Your task to perform on an android device: Open Youtube and go to "Your channel" Image 0: 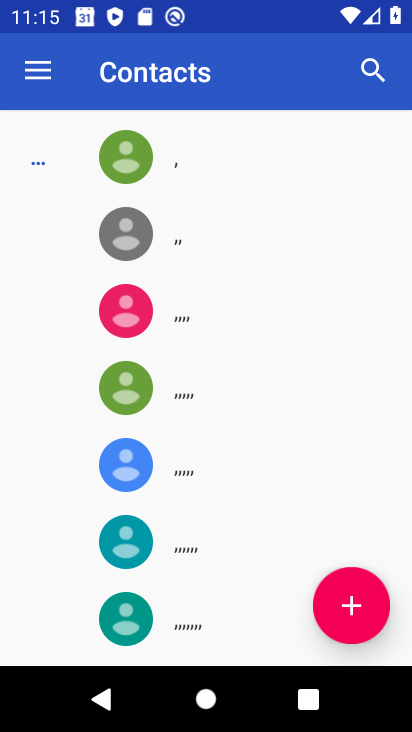
Step 0: press home button
Your task to perform on an android device: Open Youtube and go to "Your channel" Image 1: 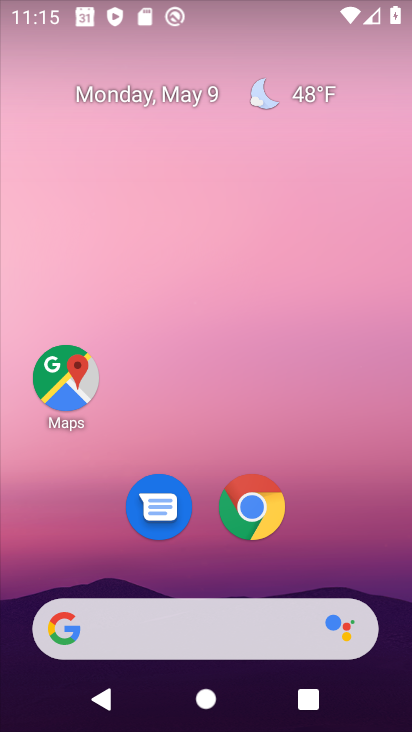
Step 1: drag from (319, 529) to (253, 138)
Your task to perform on an android device: Open Youtube and go to "Your channel" Image 2: 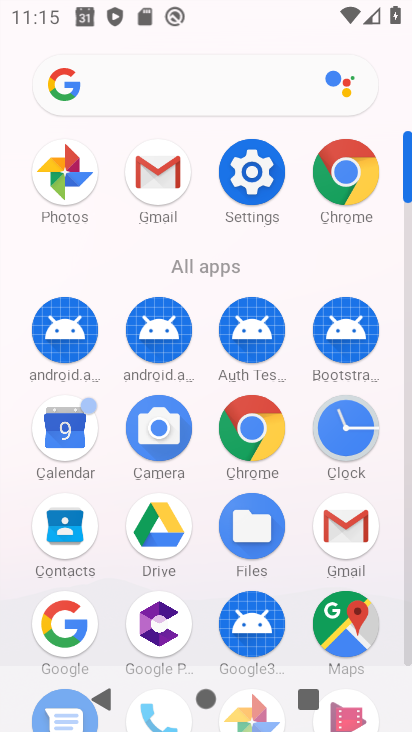
Step 2: drag from (298, 583) to (282, 303)
Your task to perform on an android device: Open Youtube and go to "Your channel" Image 3: 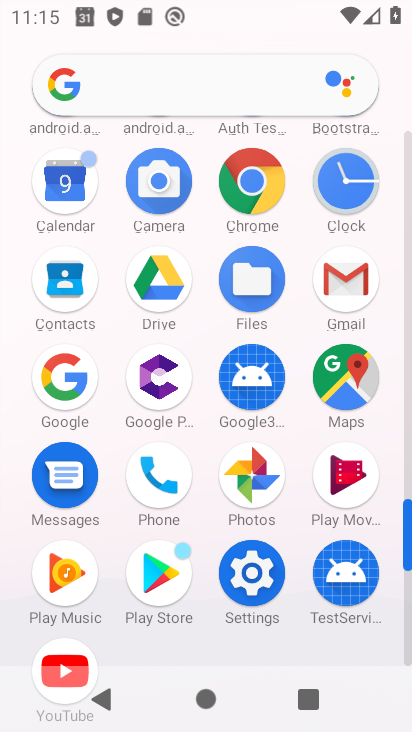
Step 3: click (67, 650)
Your task to perform on an android device: Open Youtube and go to "Your channel" Image 4: 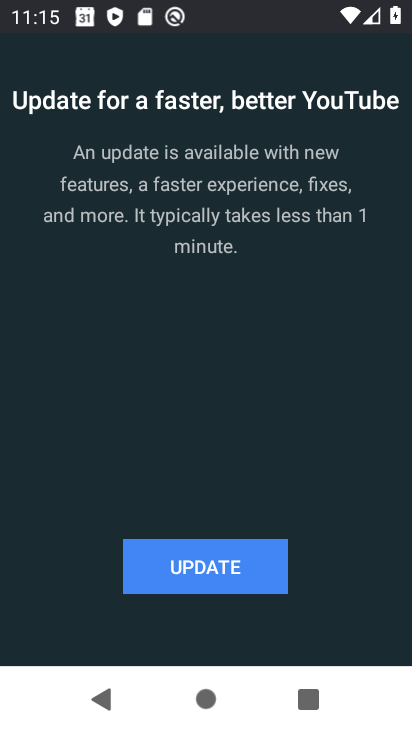
Step 4: click (215, 567)
Your task to perform on an android device: Open Youtube and go to "Your channel" Image 5: 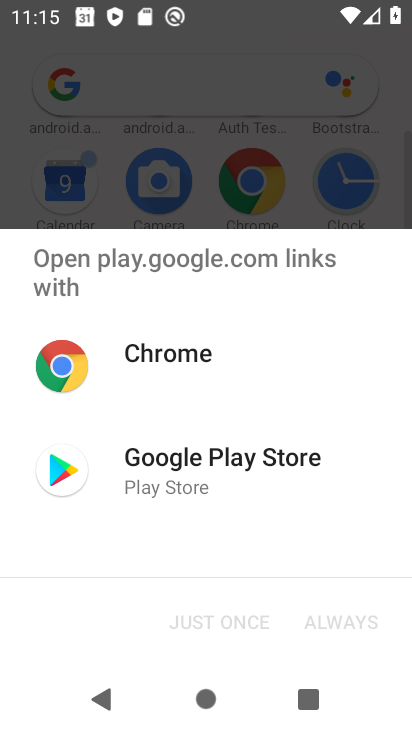
Step 5: click (172, 494)
Your task to perform on an android device: Open Youtube and go to "Your channel" Image 6: 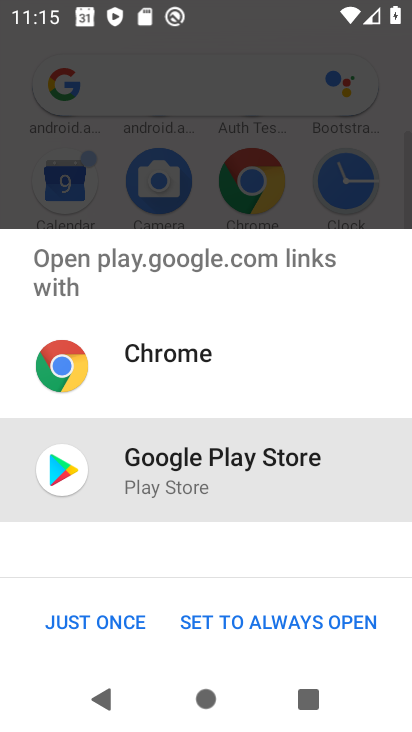
Step 6: click (111, 617)
Your task to perform on an android device: Open Youtube and go to "Your channel" Image 7: 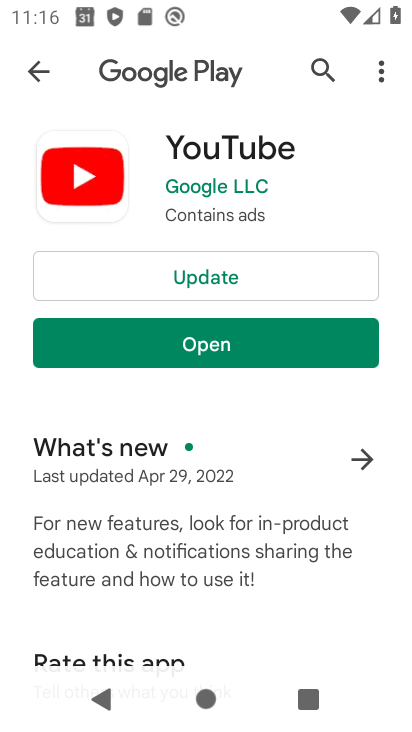
Step 7: click (239, 350)
Your task to perform on an android device: Open Youtube and go to "Your channel" Image 8: 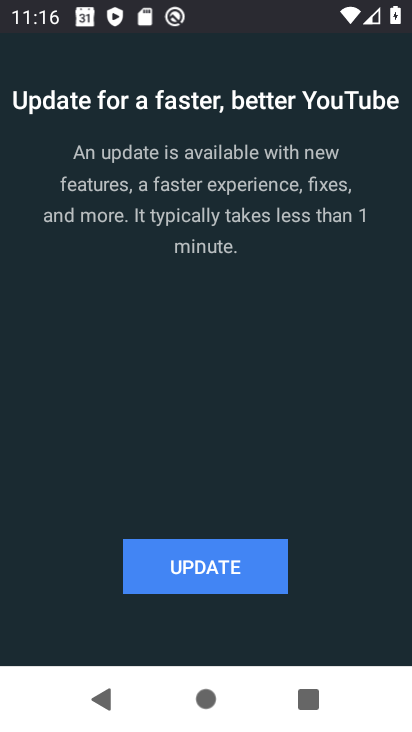
Step 8: click (206, 555)
Your task to perform on an android device: Open Youtube and go to "Your channel" Image 9: 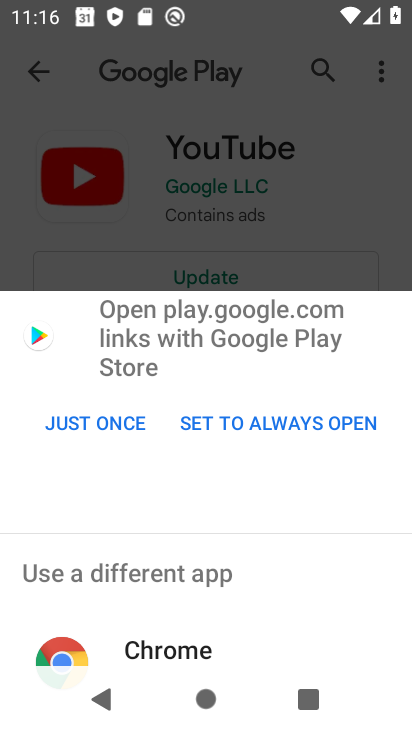
Step 9: click (108, 414)
Your task to perform on an android device: Open Youtube and go to "Your channel" Image 10: 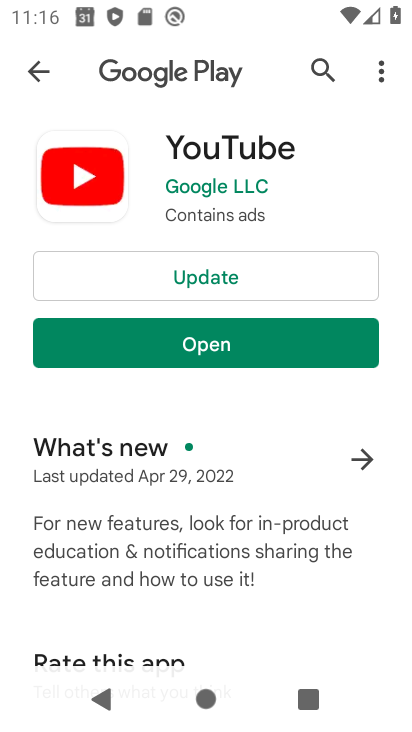
Step 10: click (229, 275)
Your task to perform on an android device: Open Youtube and go to "Your channel" Image 11: 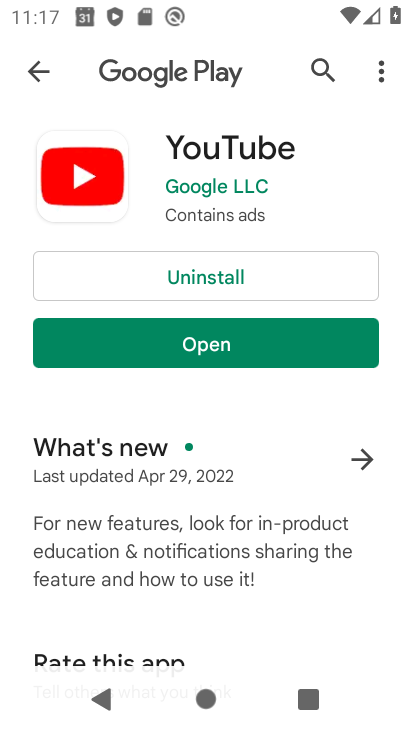
Step 11: click (154, 352)
Your task to perform on an android device: Open Youtube and go to "Your channel" Image 12: 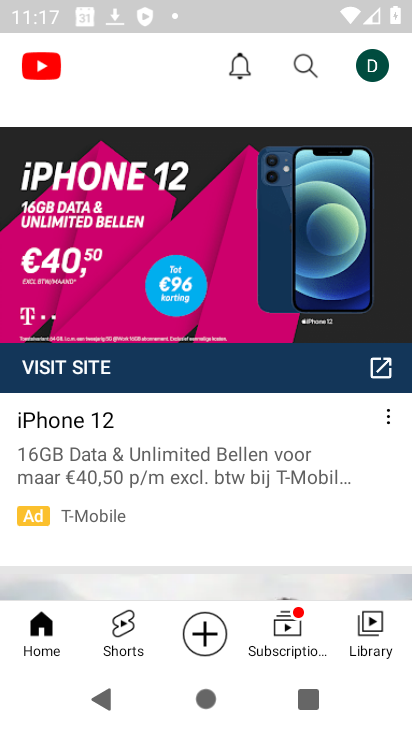
Step 12: click (371, 66)
Your task to perform on an android device: Open Youtube and go to "Your channel" Image 13: 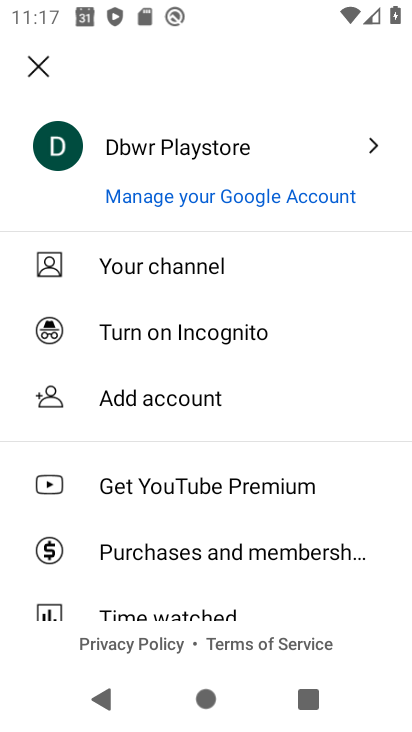
Step 13: click (181, 273)
Your task to perform on an android device: Open Youtube and go to "Your channel" Image 14: 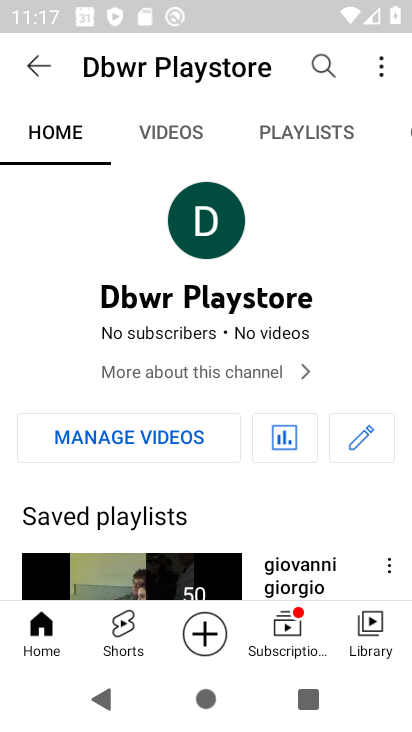
Step 14: task complete